Your task to perform on an android device: turn off priority inbox in the gmail app Image 0: 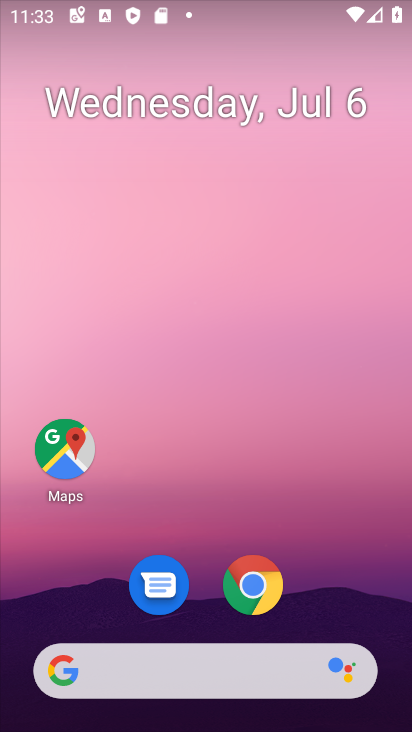
Step 0: drag from (204, 503) to (210, 18)
Your task to perform on an android device: turn off priority inbox in the gmail app Image 1: 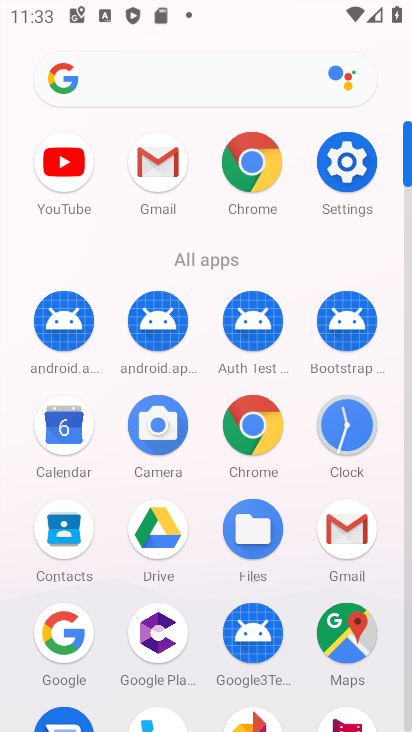
Step 1: click (155, 166)
Your task to perform on an android device: turn off priority inbox in the gmail app Image 2: 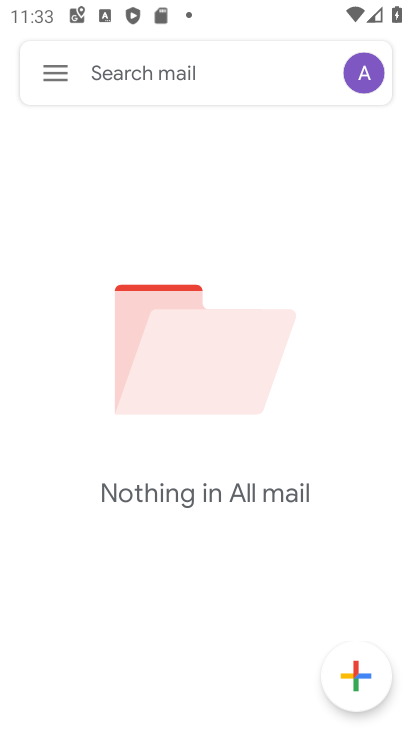
Step 2: click (63, 82)
Your task to perform on an android device: turn off priority inbox in the gmail app Image 3: 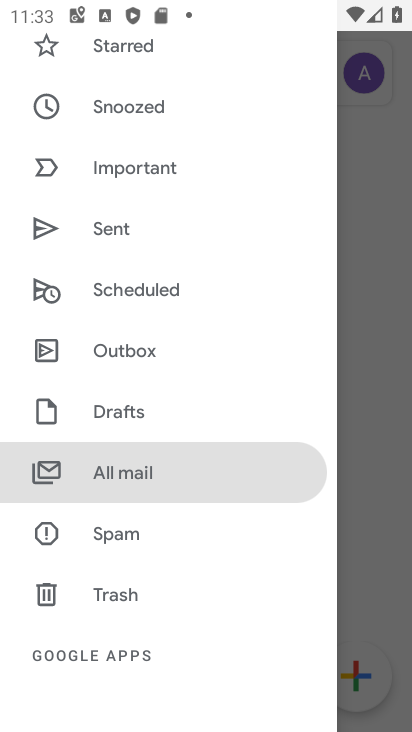
Step 3: drag from (144, 591) to (179, 270)
Your task to perform on an android device: turn off priority inbox in the gmail app Image 4: 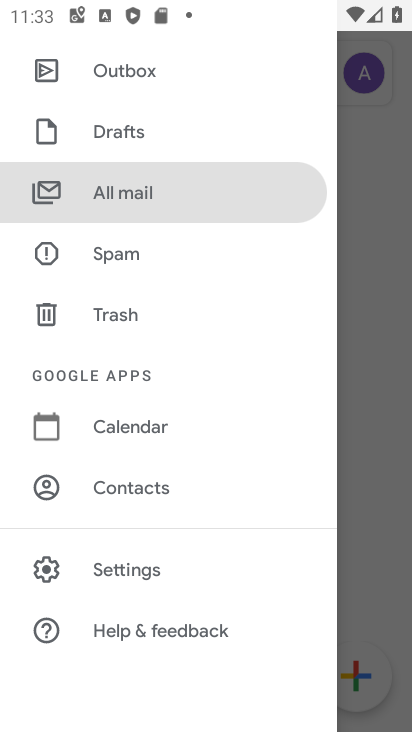
Step 4: click (128, 560)
Your task to perform on an android device: turn off priority inbox in the gmail app Image 5: 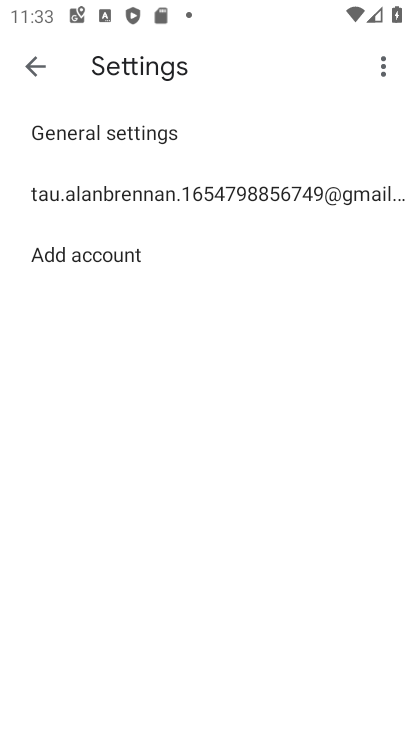
Step 5: click (259, 194)
Your task to perform on an android device: turn off priority inbox in the gmail app Image 6: 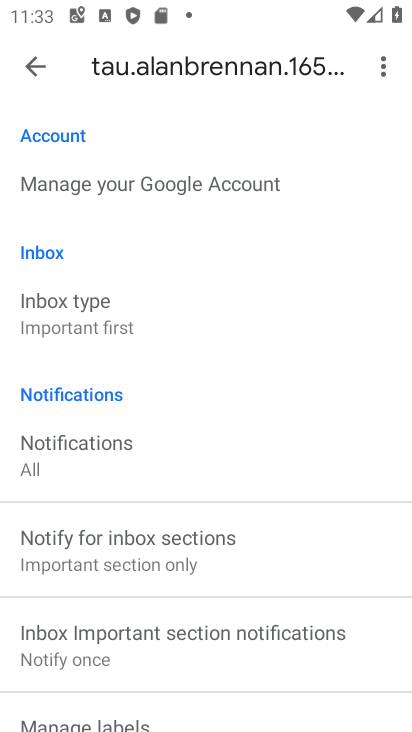
Step 6: click (99, 304)
Your task to perform on an android device: turn off priority inbox in the gmail app Image 7: 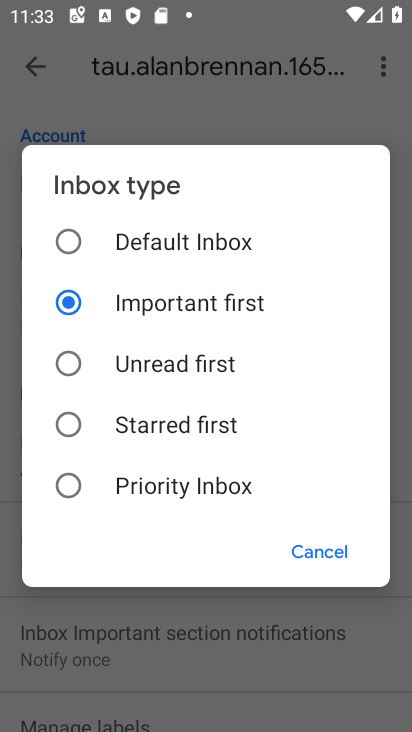
Step 7: click (309, 543)
Your task to perform on an android device: turn off priority inbox in the gmail app Image 8: 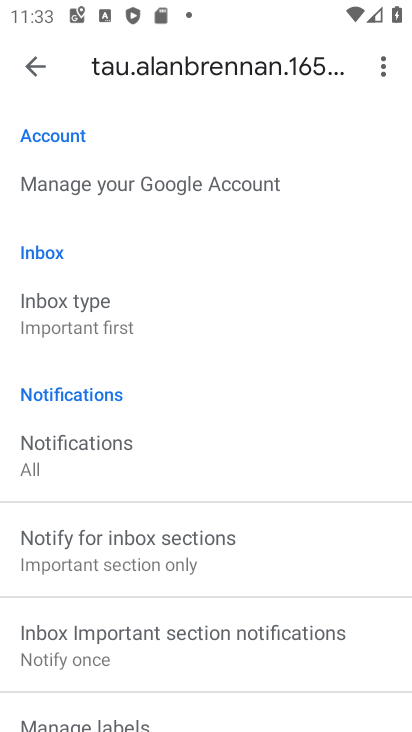
Step 8: task complete